Your task to perform on an android device: show emergency info Image 0: 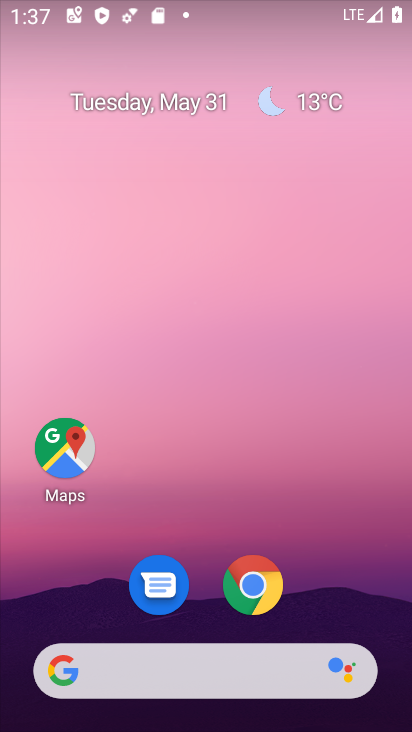
Step 0: drag from (229, 507) to (214, 0)
Your task to perform on an android device: show emergency info Image 1: 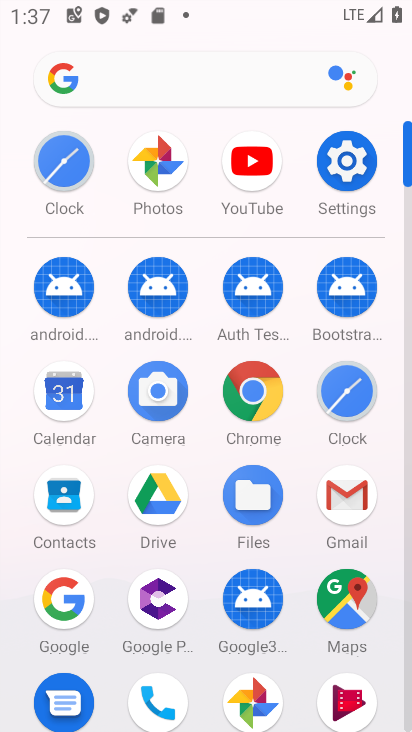
Step 1: click (328, 163)
Your task to perform on an android device: show emergency info Image 2: 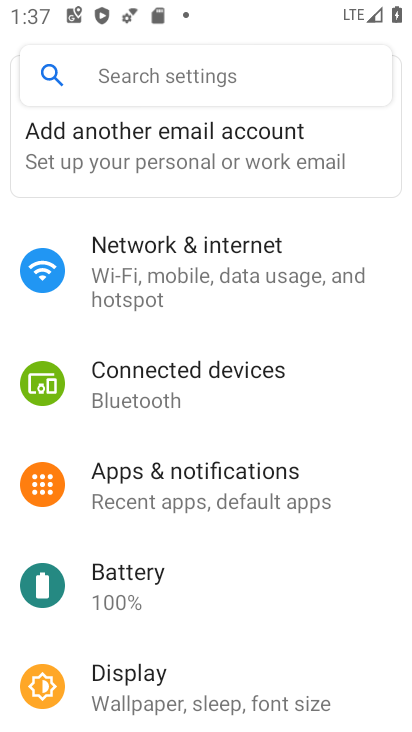
Step 2: drag from (248, 558) to (225, 62)
Your task to perform on an android device: show emergency info Image 3: 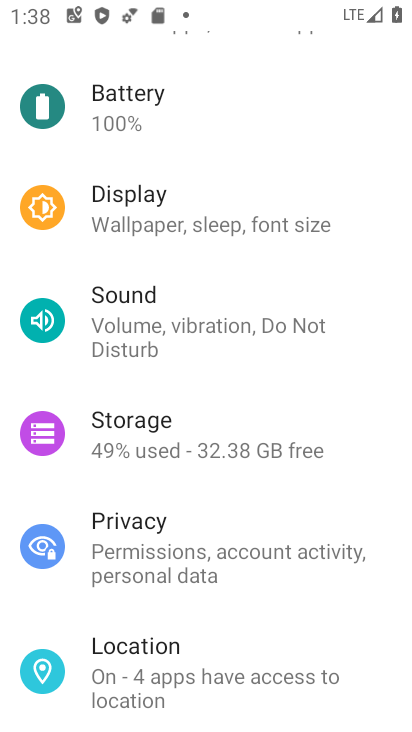
Step 3: drag from (233, 564) to (248, 35)
Your task to perform on an android device: show emergency info Image 4: 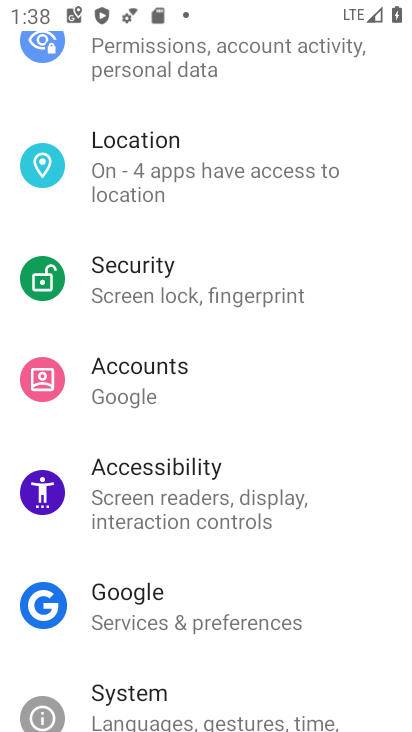
Step 4: drag from (243, 425) to (252, 158)
Your task to perform on an android device: show emergency info Image 5: 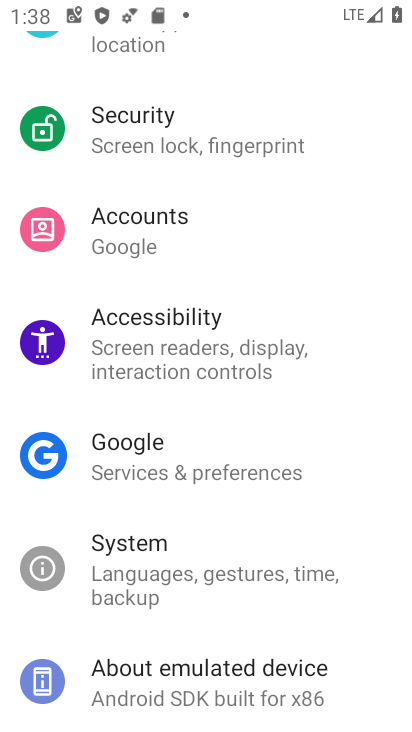
Step 5: click (252, 687)
Your task to perform on an android device: show emergency info Image 6: 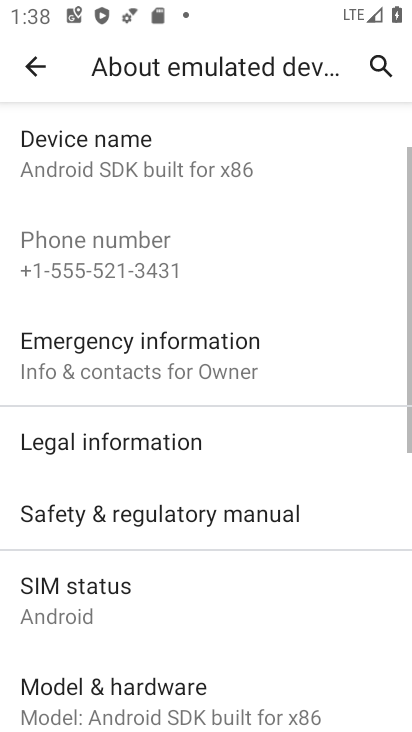
Step 6: click (240, 362)
Your task to perform on an android device: show emergency info Image 7: 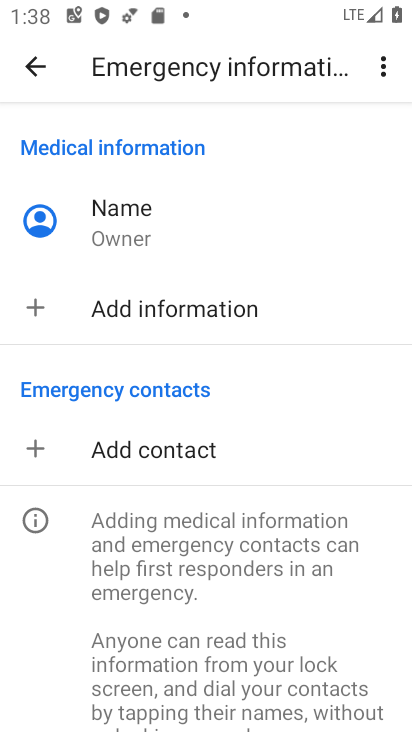
Step 7: task complete